Your task to perform on an android device: open device folders in google photos Image 0: 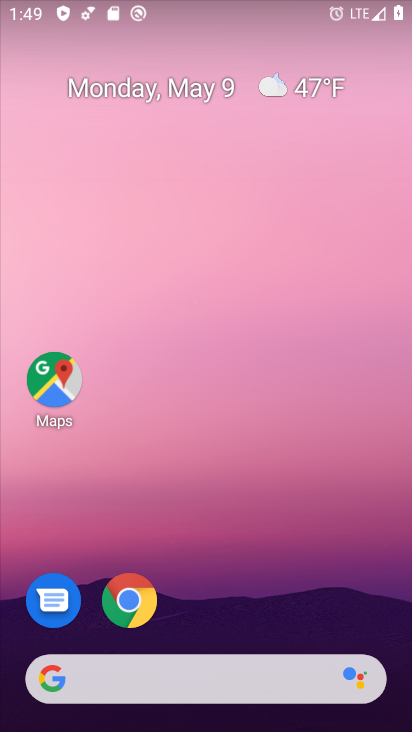
Step 0: drag from (202, 666) to (185, 163)
Your task to perform on an android device: open device folders in google photos Image 1: 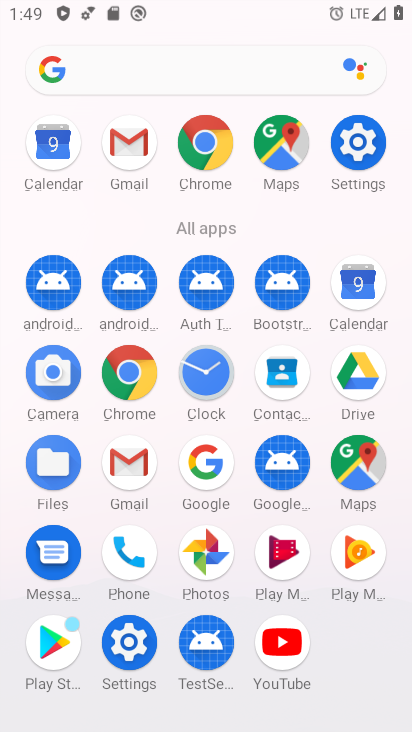
Step 1: click (204, 558)
Your task to perform on an android device: open device folders in google photos Image 2: 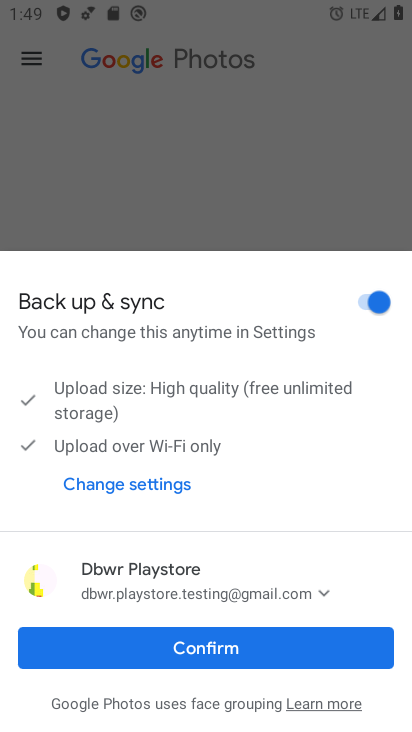
Step 2: click (172, 595)
Your task to perform on an android device: open device folders in google photos Image 3: 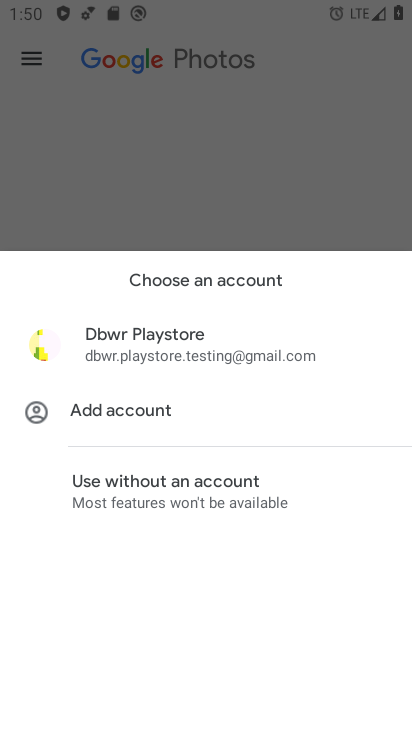
Step 3: click (179, 344)
Your task to perform on an android device: open device folders in google photos Image 4: 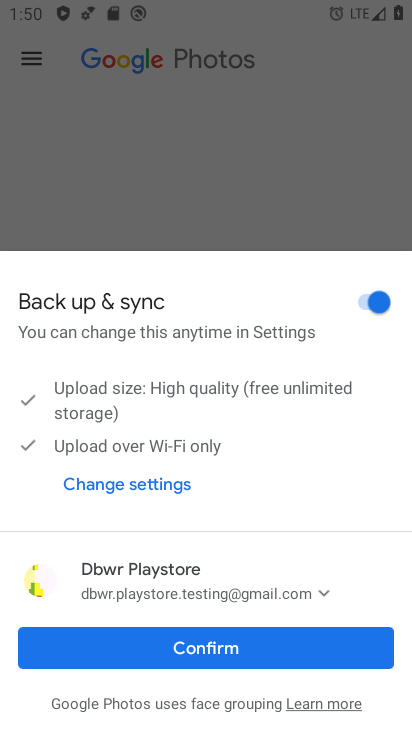
Step 4: click (190, 648)
Your task to perform on an android device: open device folders in google photos Image 5: 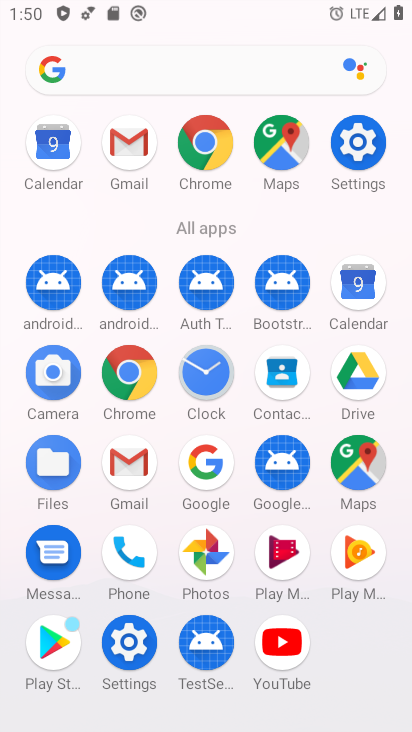
Step 5: click (198, 549)
Your task to perform on an android device: open device folders in google photos Image 6: 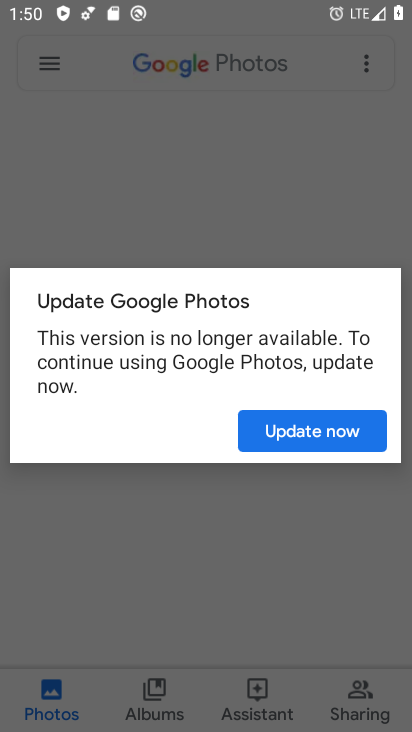
Step 6: click (298, 440)
Your task to perform on an android device: open device folders in google photos Image 7: 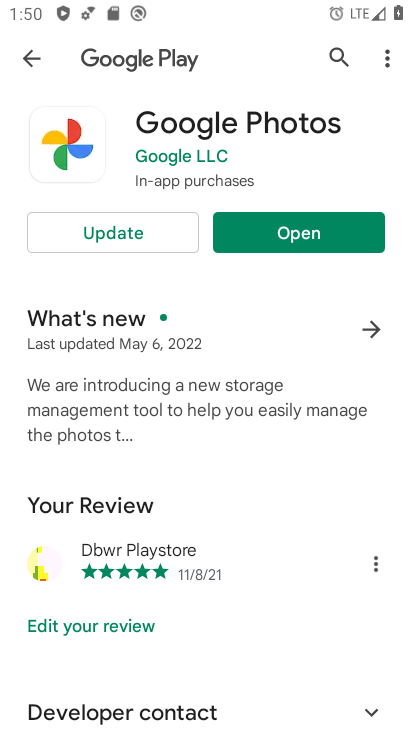
Step 7: click (171, 243)
Your task to perform on an android device: open device folders in google photos Image 8: 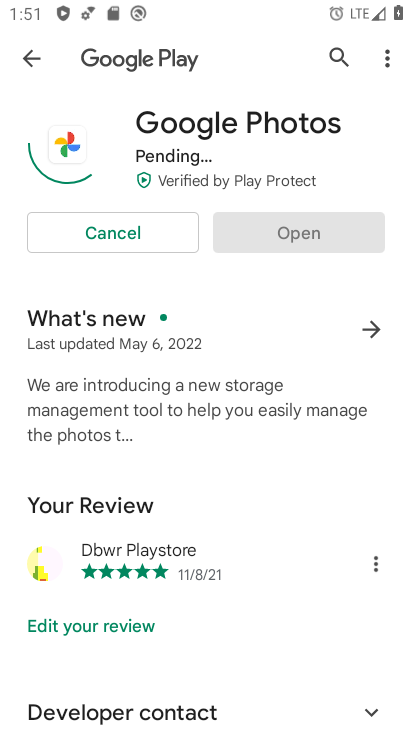
Step 8: task complete